Your task to perform on an android device: Open maps Image 0: 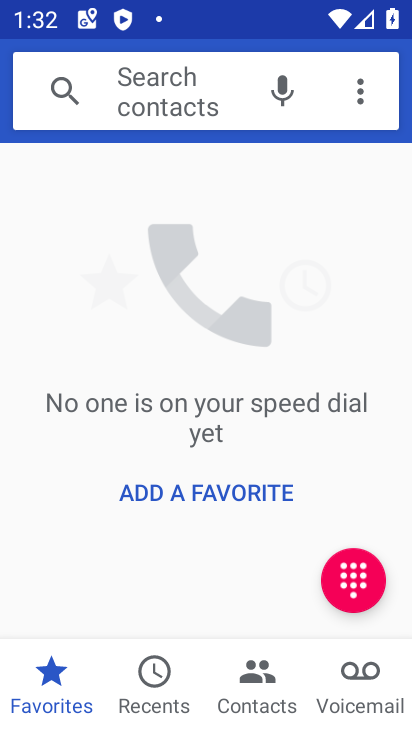
Step 0: press home button
Your task to perform on an android device: Open maps Image 1: 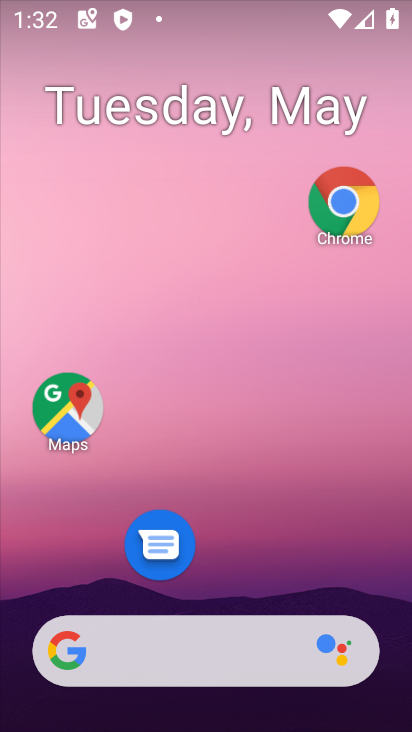
Step 1: click (52, 408)
Your task to perform on an android device: Open maps Image 2: 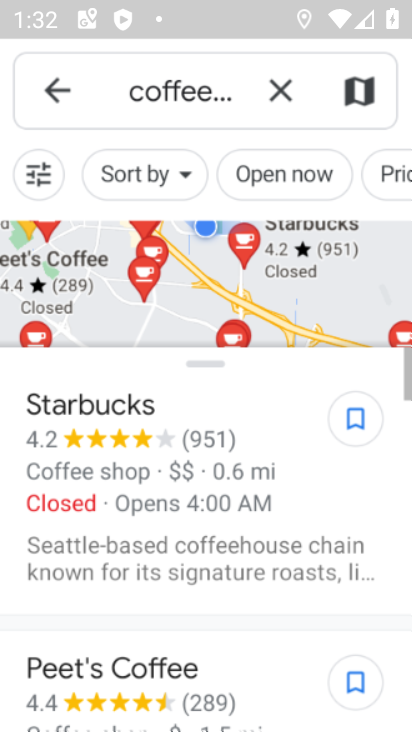
Step 2: task complete